Your task to perform on an android device: What's the weather like in Mexico City? Image 0: 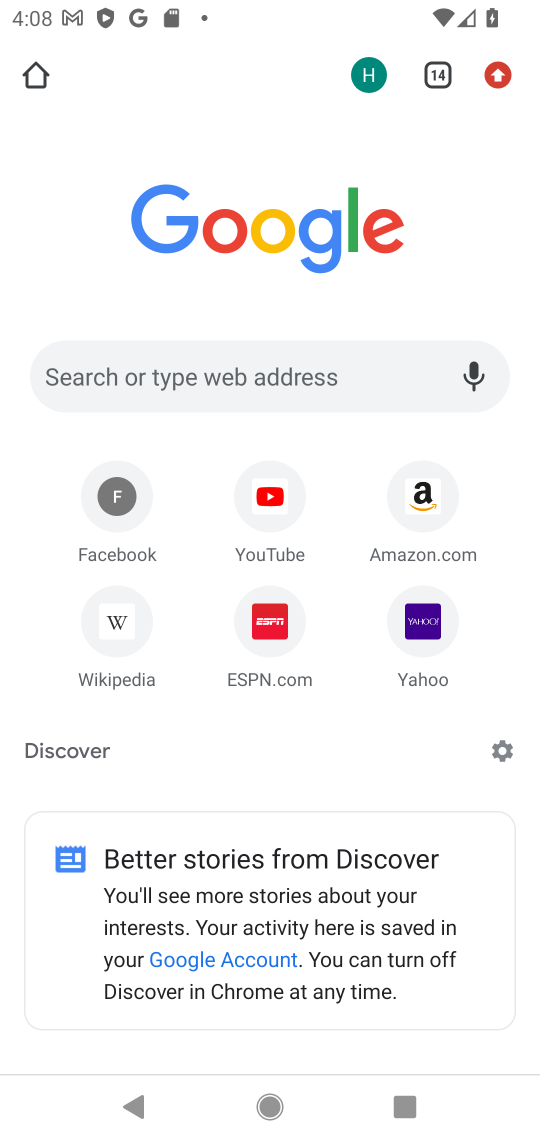
Step 0: click (253, 366)
Your task to perform on an android device: What's the weather like in Mexico City? Image 1: 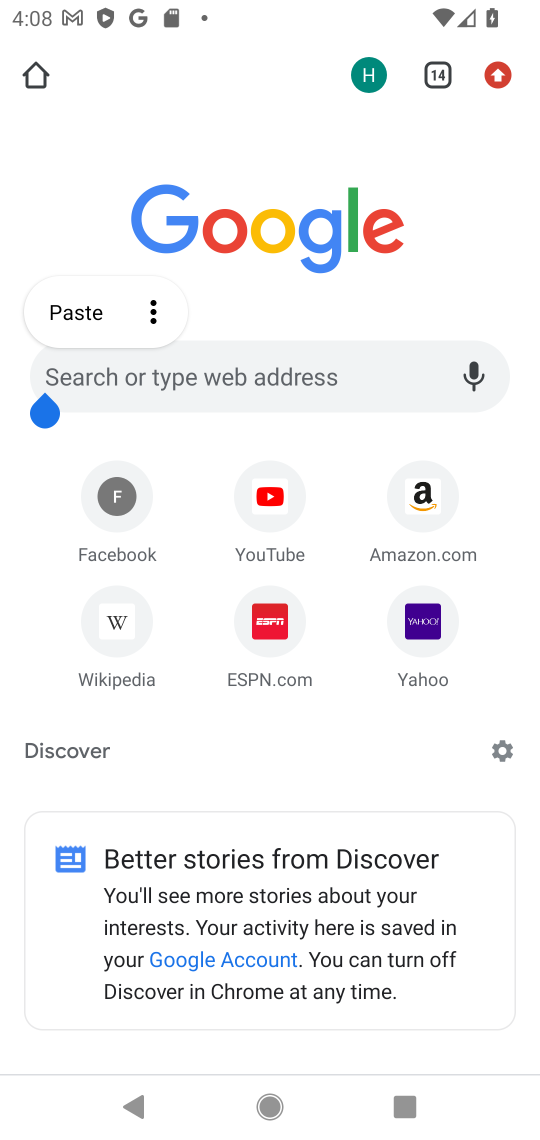
Step 1: type "What's the weather like in Mexico City? "
Your task to perform on an android device: What's the weather like in Mexico City? Image 2: 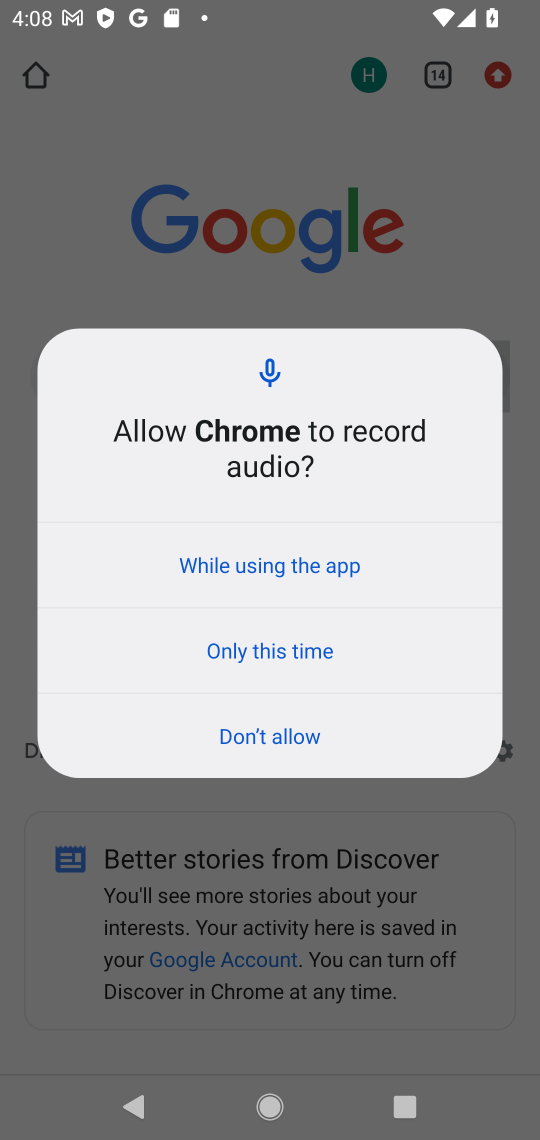
Step 2: click (335, 566)
Your task to perform on an android device: What's the weather like in Mexico City? Image 3: 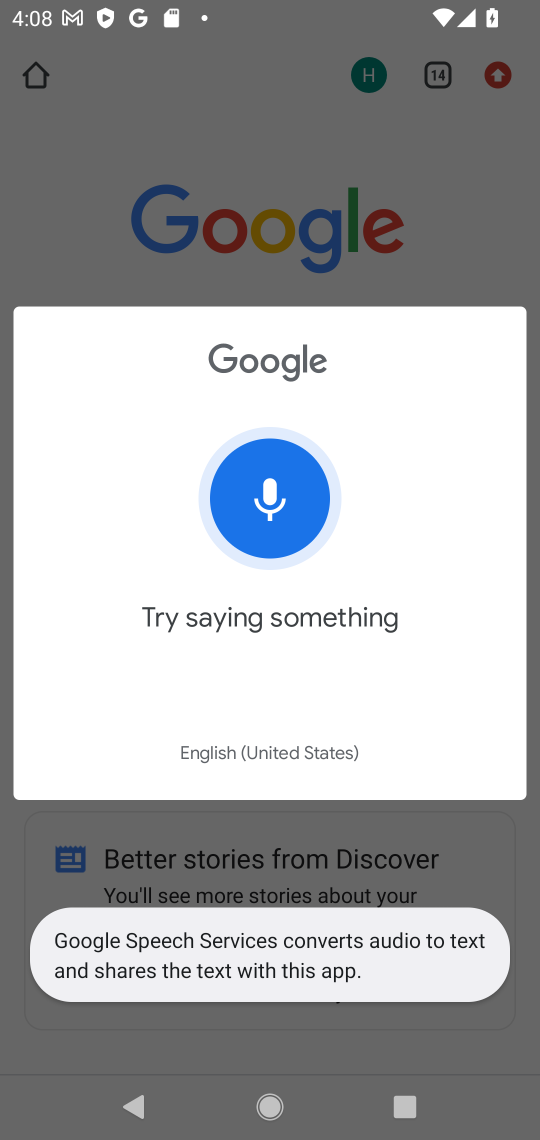
Step 3: click (472, 891)
Your task to perform on an android device: What's the weather like in Mexico City? Image 4: 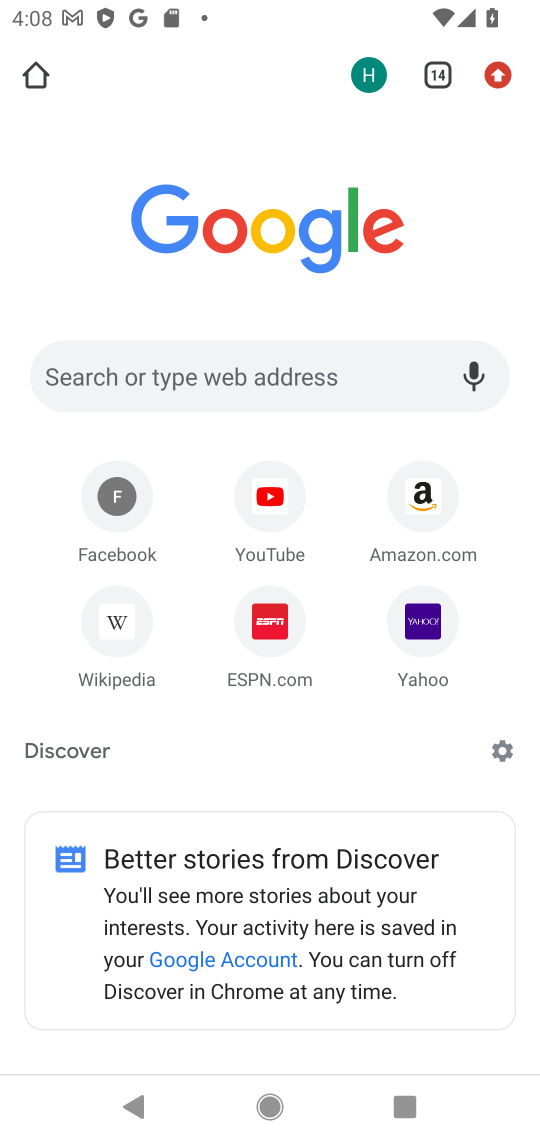
Step 4: click (181, 365)
Your task to perform on an android device: What's the weather like in Mexico City? Image 5: 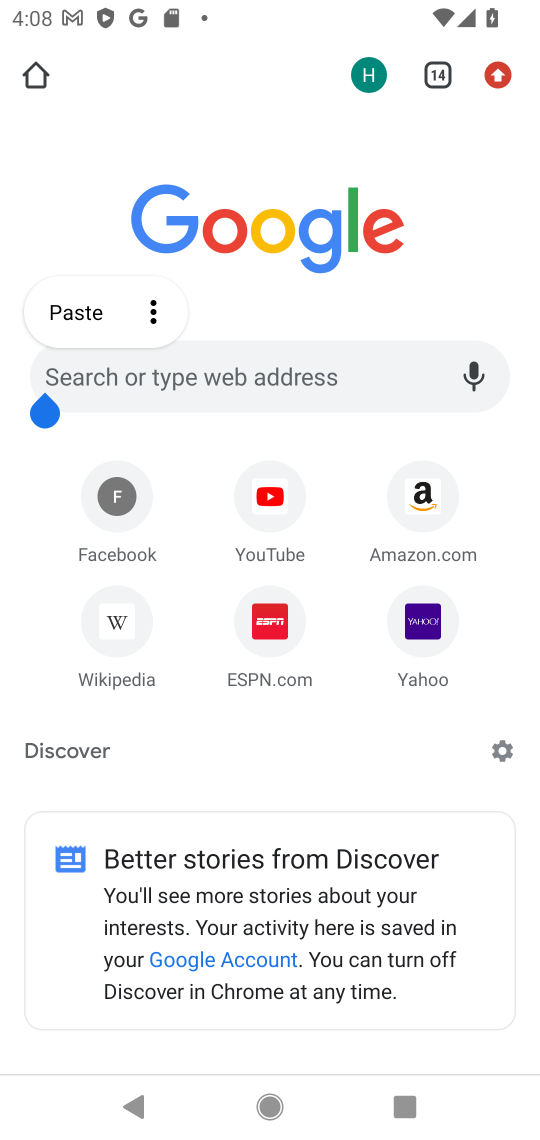
Step 5: type "What's the weather like in Mexico City? "
Your task to perform on an android device: What's the weather like in Mexico City? Image 6: 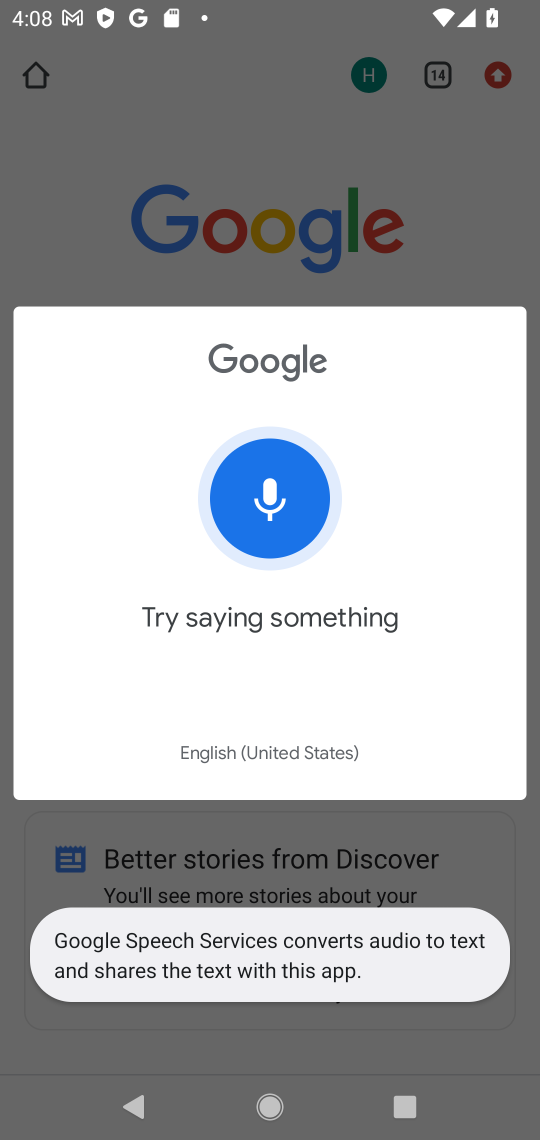
Step 6: click (471, 181)
Your task to perform on an android device: What's the weather like in Mexico City? Image 7: 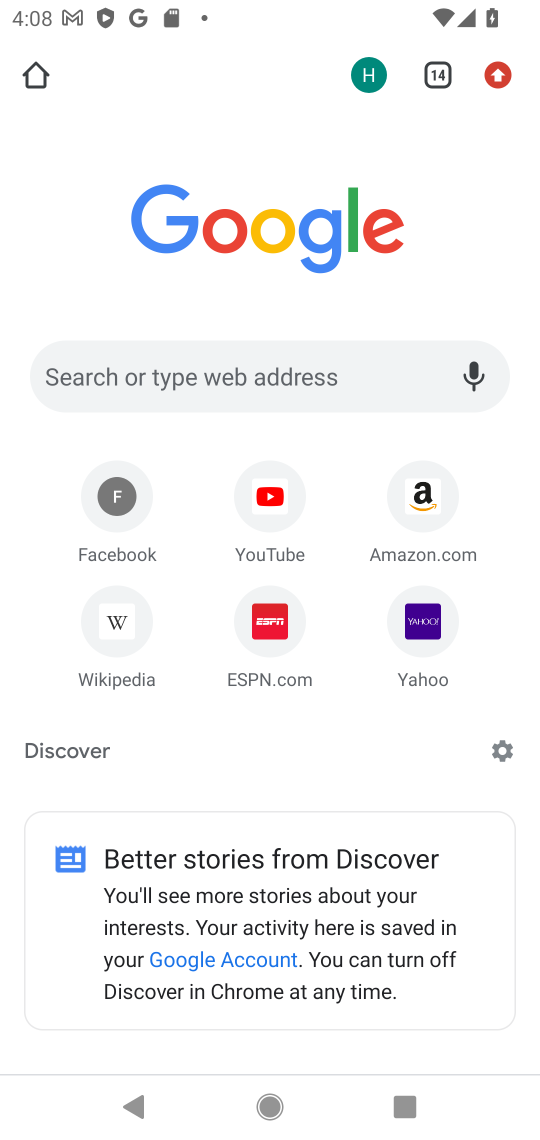
Step 7: press back button
Your task to perform on an android device: What's the weather like in Mexico City? Image 8: 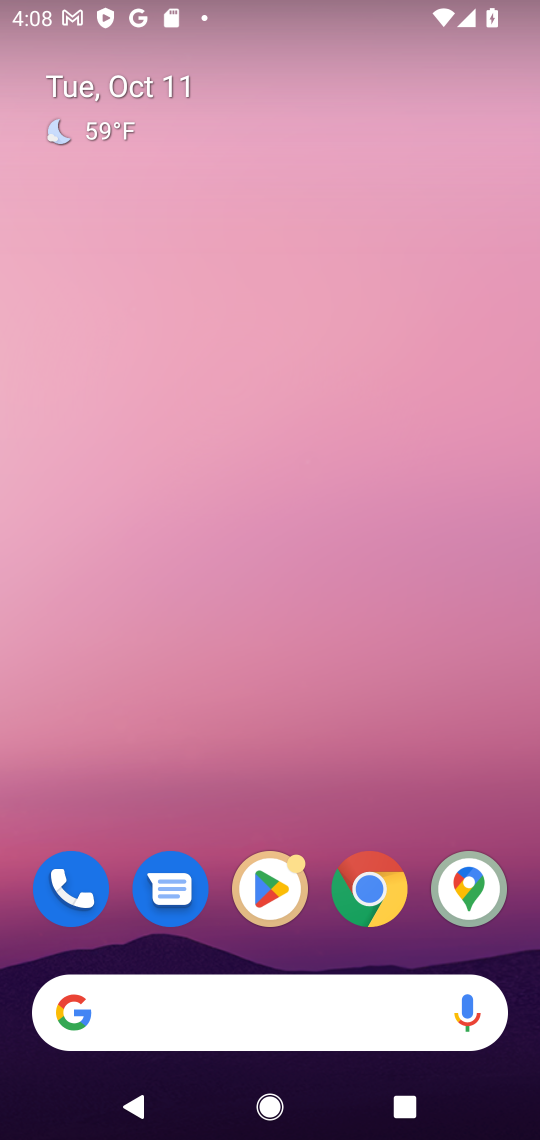
Step 8: drag from (319, 288) to (319, 185)
Your task to perform on an android device: What's the weather like in Mexico City? Image 9: 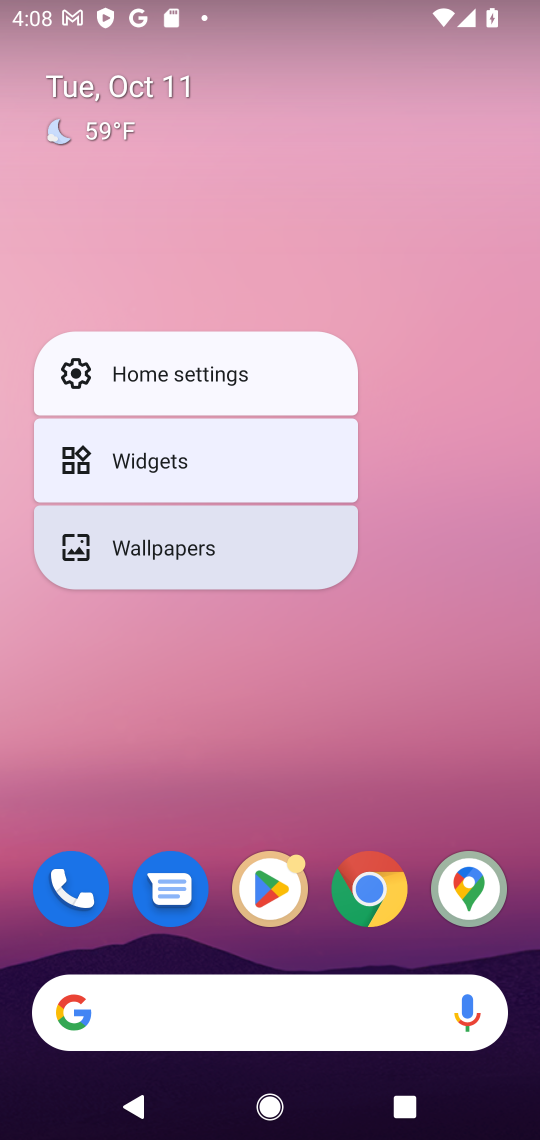
Step 9: click (404, 806)
Your task to perform on an android device: What's the weather like in Mexico City? Image 10: 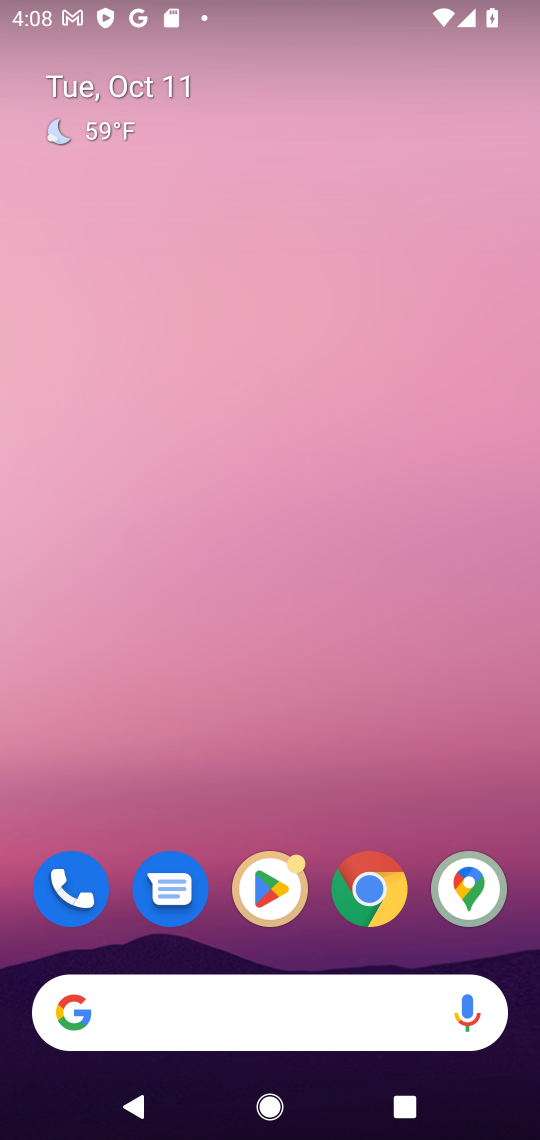
Step 10: drag from (281, 953) to (283, 327)
Your task to perform on an android device: What's the weather like in Mexico City? Image 11: 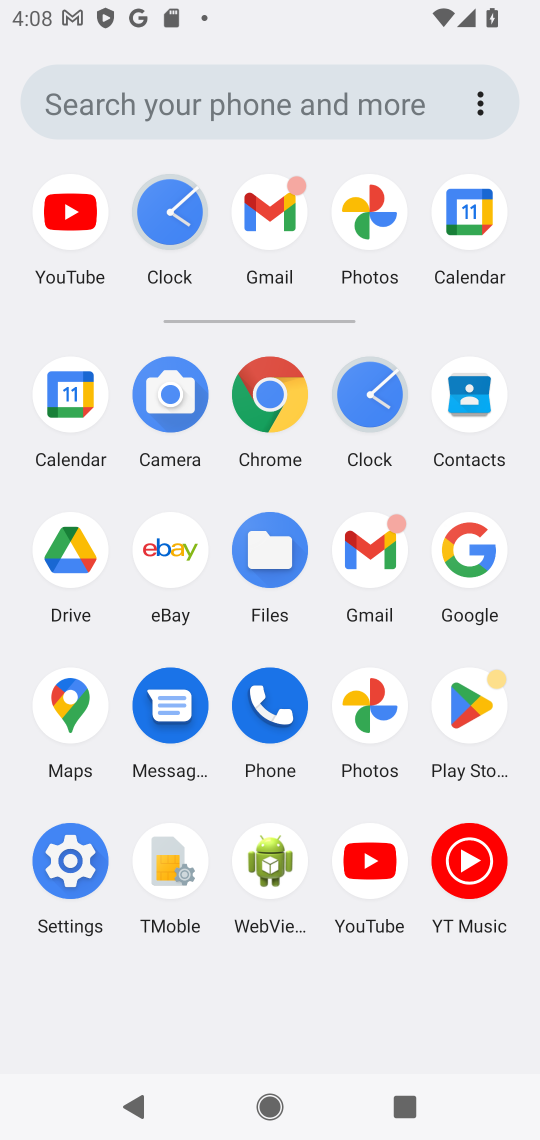
Step 11: click (468, 551)
Your task to perform on an android device: What's the weather like in Mexico City? Image 12: 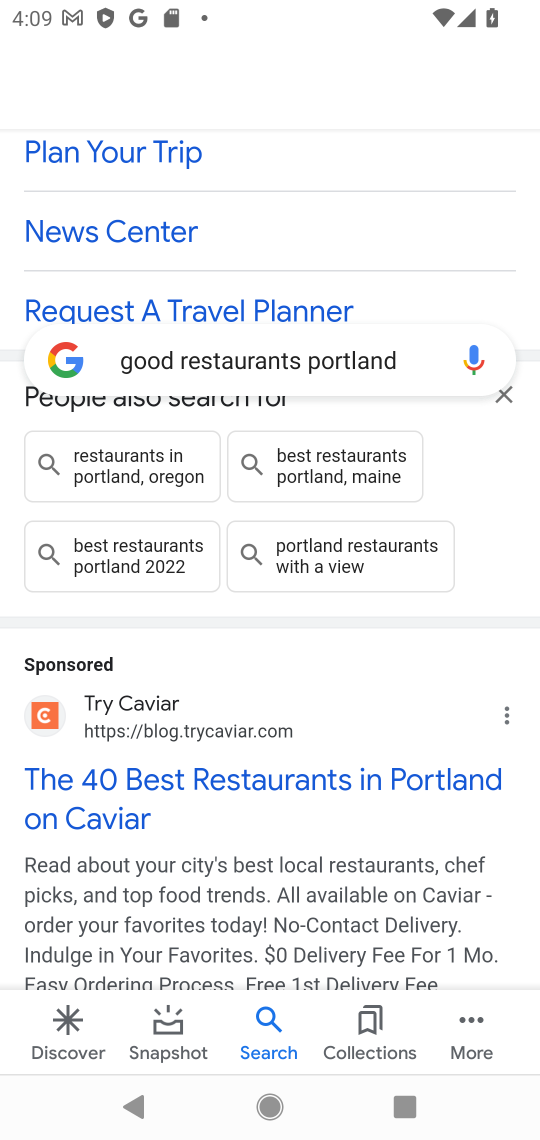
Step 12: click (336, 359)
Your task to perform on an android device: What's the weather like in Mexico City? Image 13: 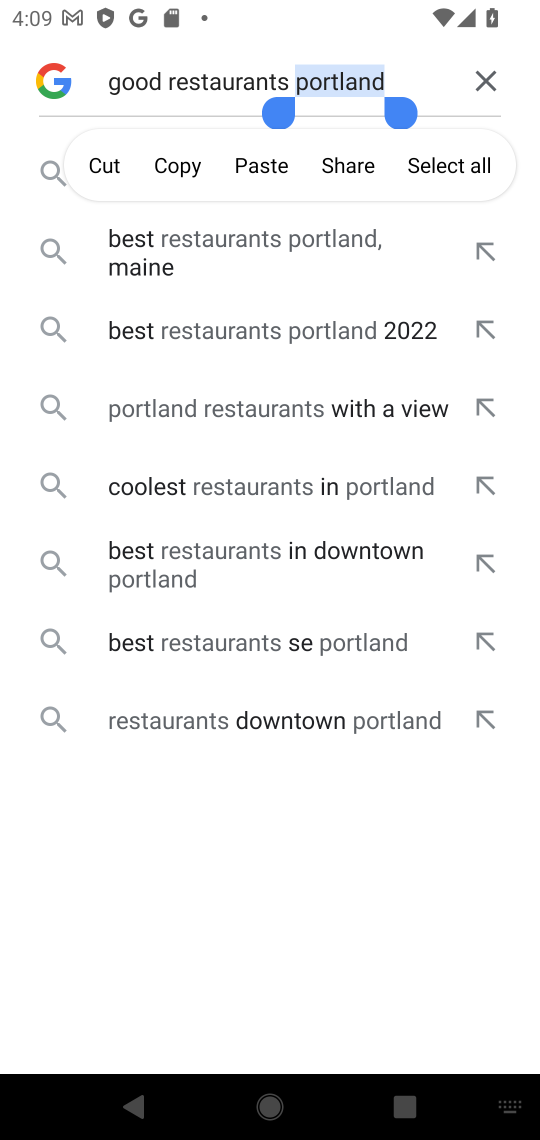
Step 13: click (497, 82)
Your task to perform on an android device: What's the weather like in Mexico City? Image 14: 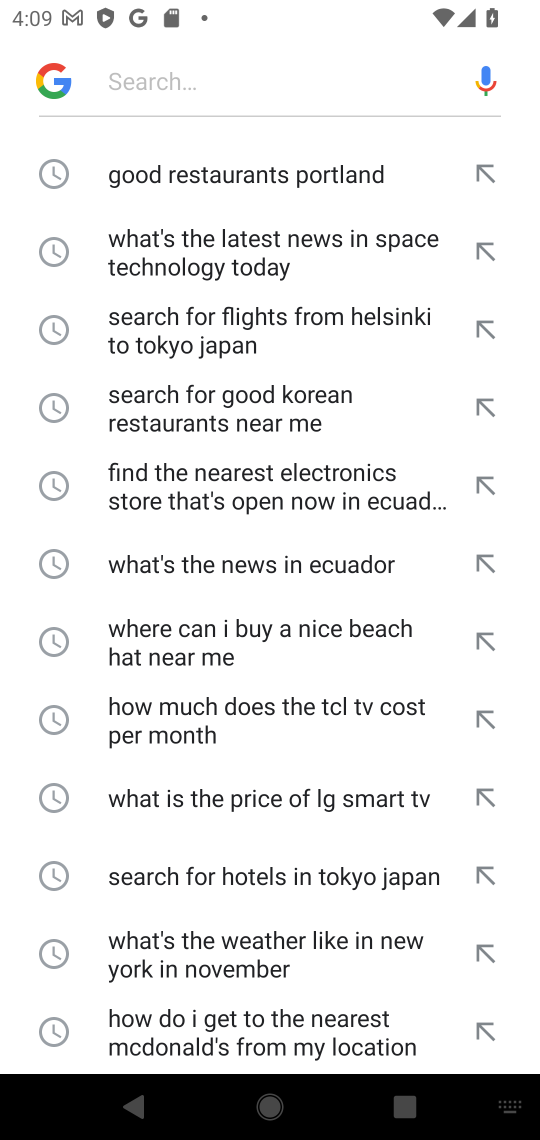
Step 14: click (239, 64)
Your task to perform on an android device: What's the weather like in Mexico City? Image 15: 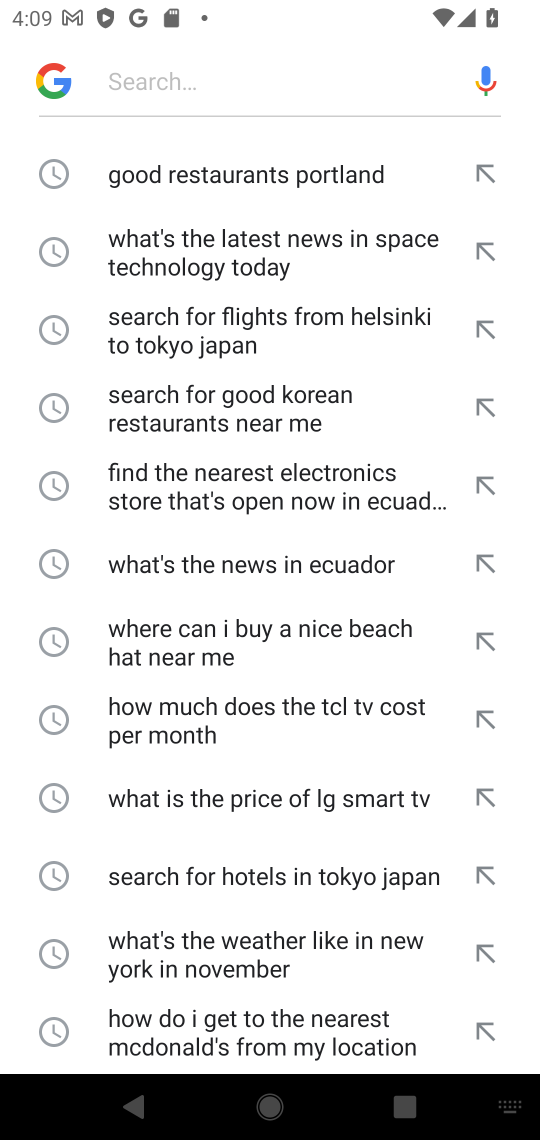
Step 15: type "What's the weather like in Mexico City? "
Your task to perform on an android device: What's the weather like in Mexico City? Image 16: 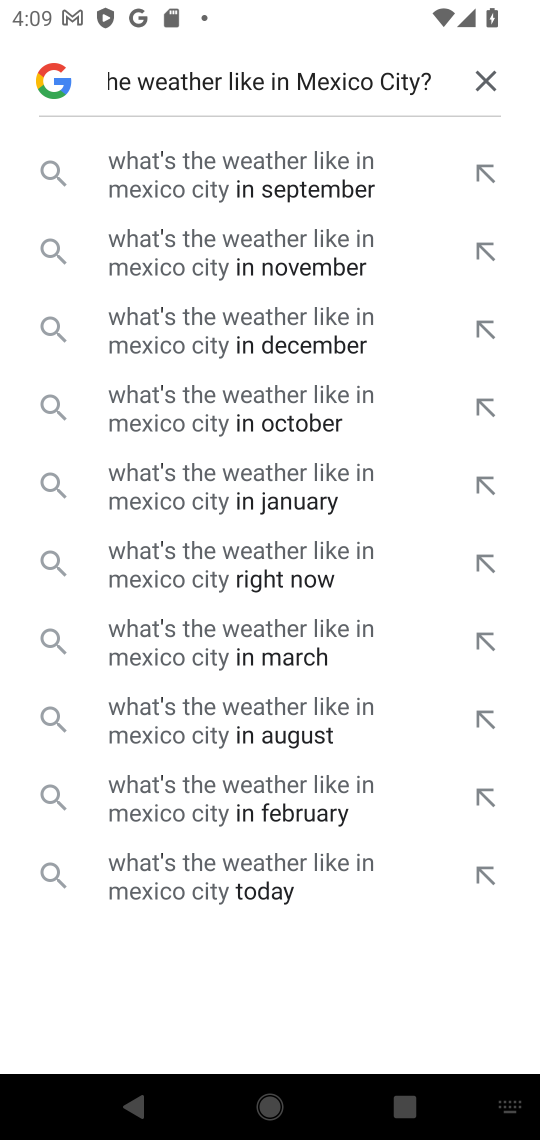
Step 16: click (282, 166)
Your task to perform on an android device: What's the weather like in Mexico City? Image 17: 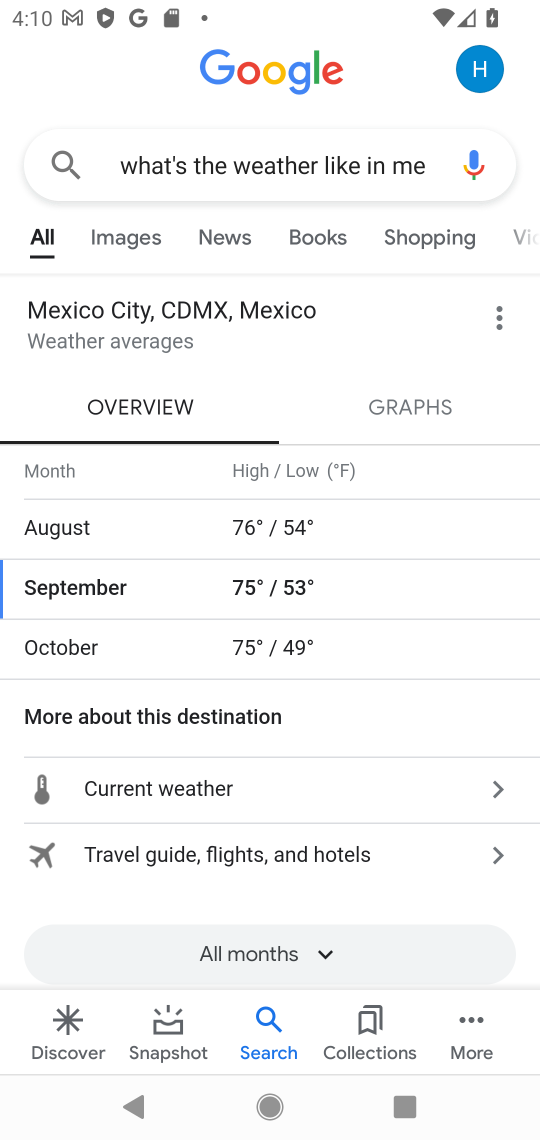
Step 17: task complete